Your task to perform on an android device: add a label to a message in the gmail app Image 0: 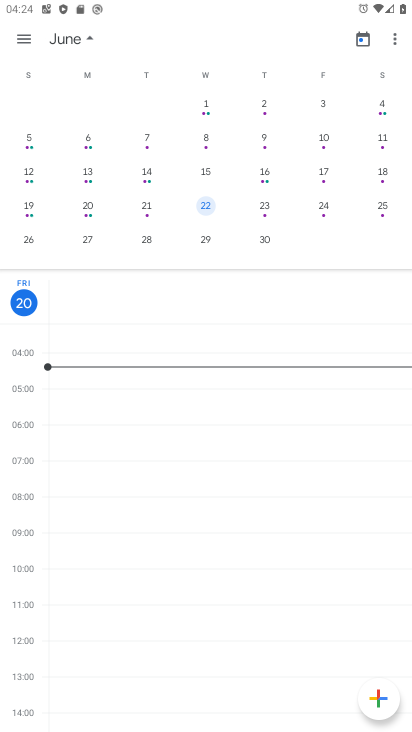
Step 0: press home button
Your task to perform on an android device: add a label to a message in the gmail app Image 1: 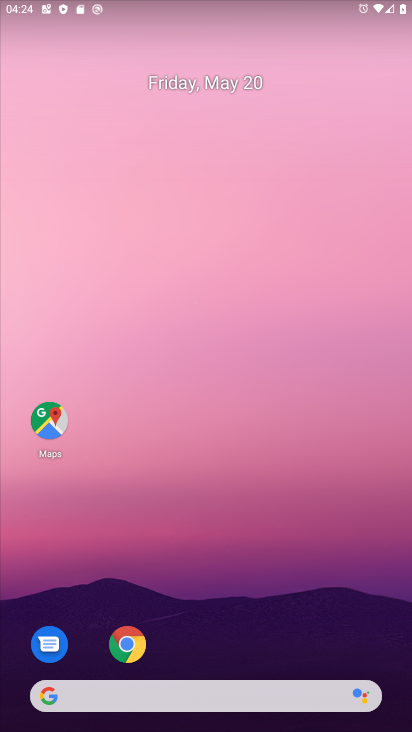
Step 1: drag from (323, 597) to (252, 132)
Your task to perform on an android device: add a label to a message in the gmail app Image 2: 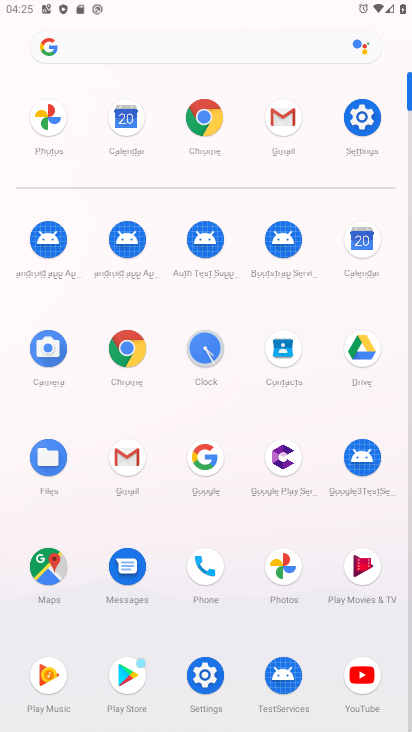
Step 2: click (133, 455)
Your task to perform on an android device: add a label to a message in the gmail app Image 3: 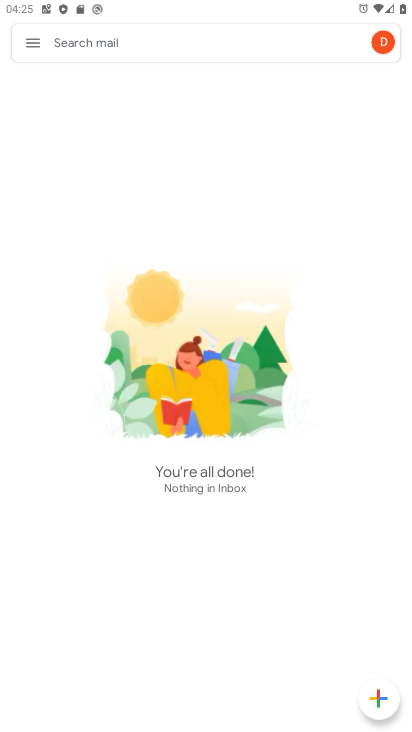
Step 3: task complete